Your task to perform on an android device: turn off translation in the chrome app Image 0: 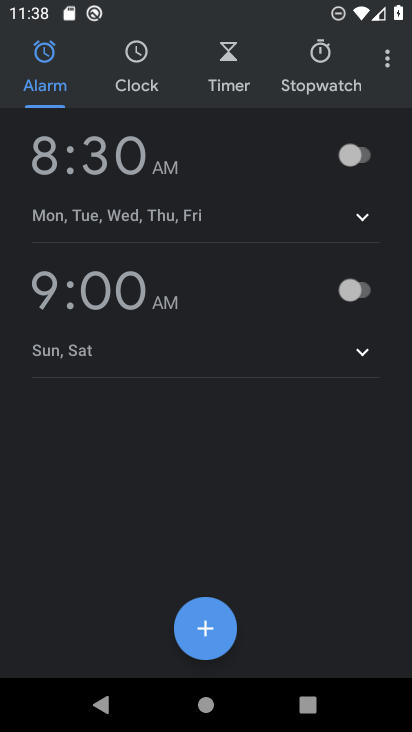
Step 0: press home button
Your task to perform on an android device: turn off translation in the chrome app Image 1: 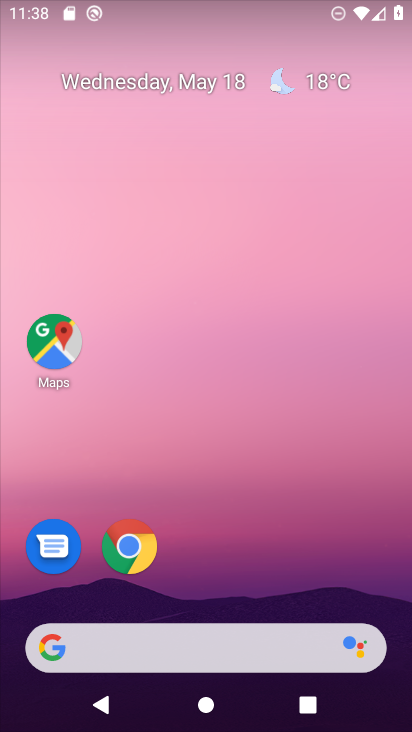
Step 1: click (130, 547)
Your task to perform on an android device: turn off translation in the chrome app Image 2: 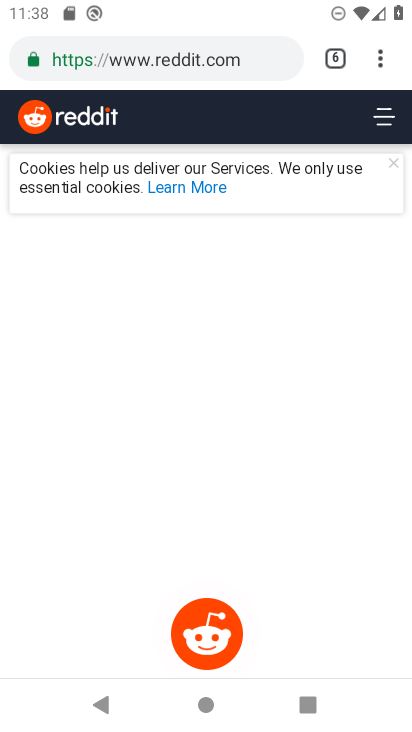
Step 2: click (381, 65)
Your task to perform on an android device: turn off translation in the chrome app Image 3: 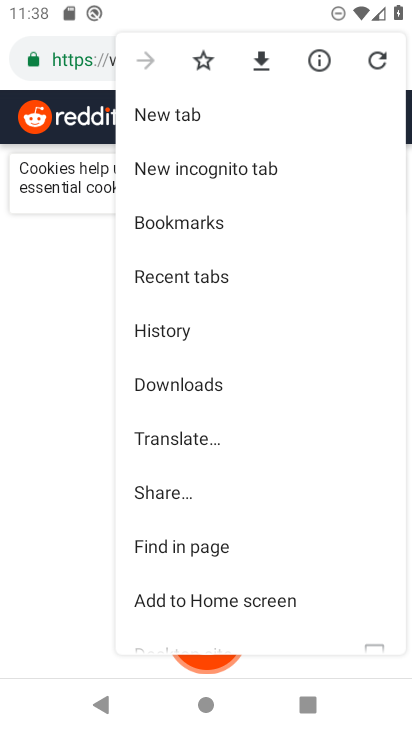
Step 3: drag from (191, 586) to (198, 245)
Your task to perform on an android device: turn off translation in the chrome app Image 4: 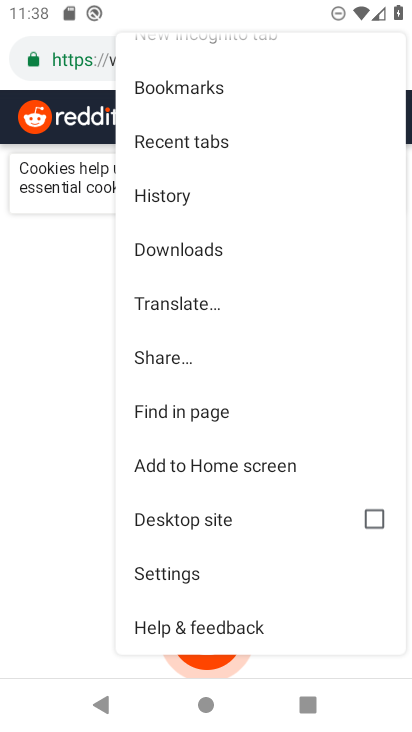
Step 4: click (186, 570)
Your task to perform on an android device: turn off translation in the chrome app Image 5: 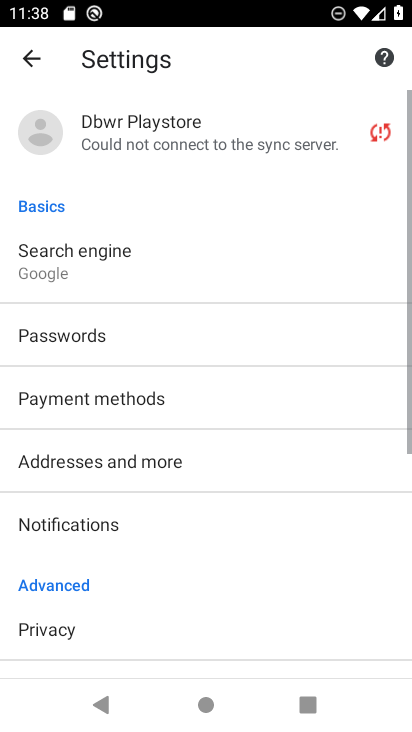
Step 5: drag from (139, 619) to (154, 347)
Your task to perform on an android device: turn off translation in the chrome app Image 6: 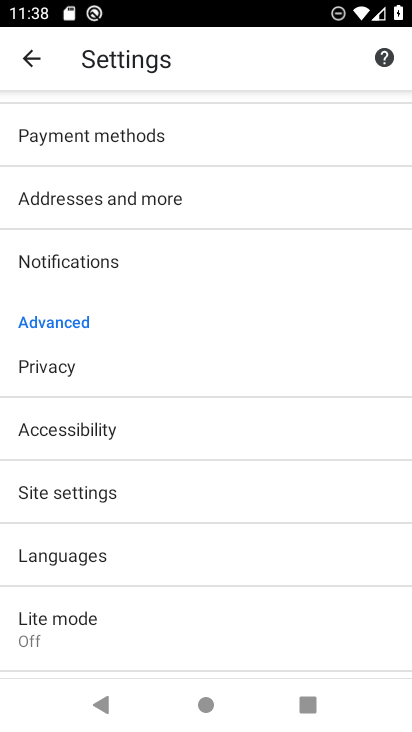
Step 6: click (104, 554)
Your task to perform on an android device: turn off translation in the chrome app Image 7: 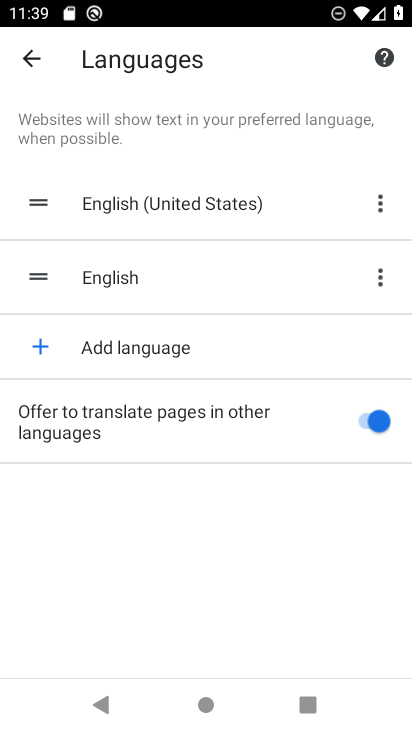
Step 7: click (368, 413)
Your task to perform on an android device: turn off translation in the chrome app Image 8: 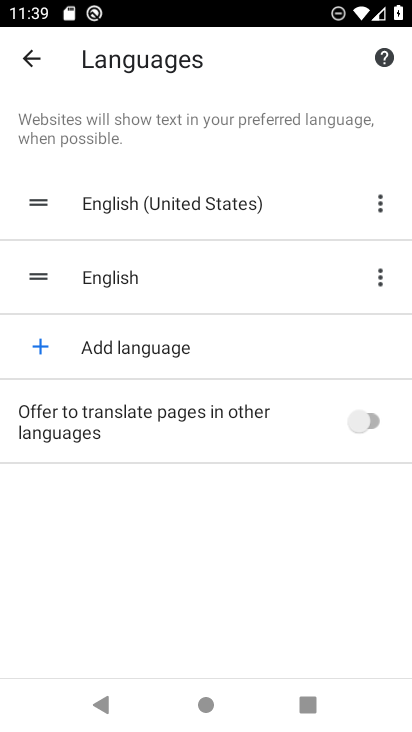
Step 8: task complete